Your task to perform on an android device: open app "Facebook Messenger" Image 0: 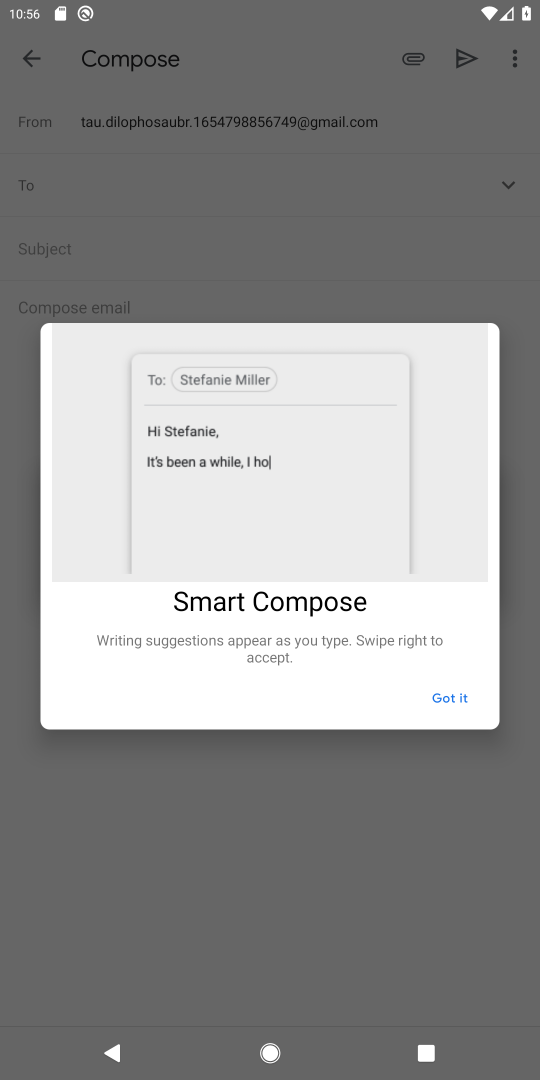
Step 0: press home button
Your task to perform on an android device: open app "Facebook Messenger" Image 1: 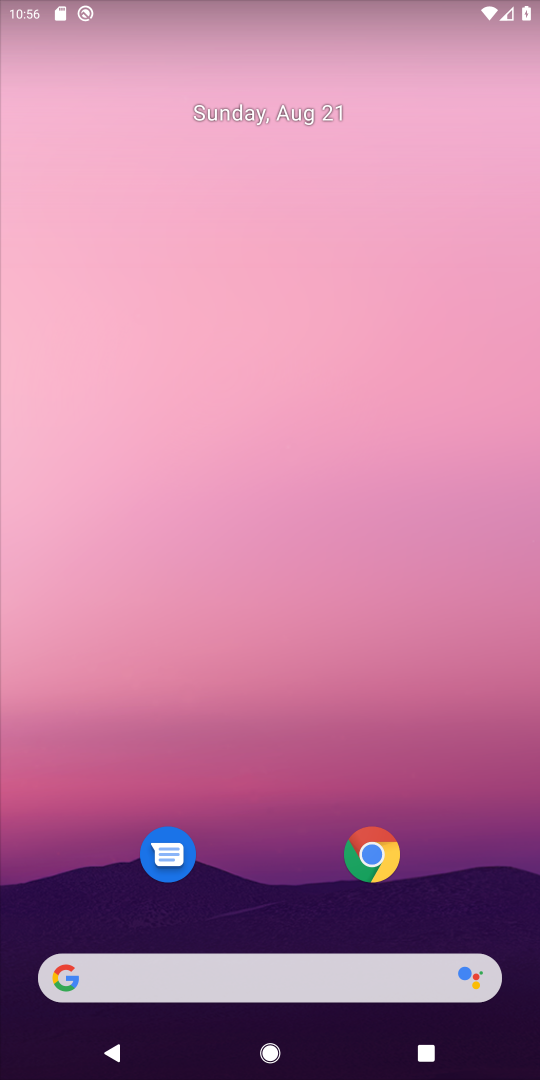
Step 1: drag from (306, 920) to (280, 132)
Your task to perform on an android device: open app "Facebook Messenger" Image 2: 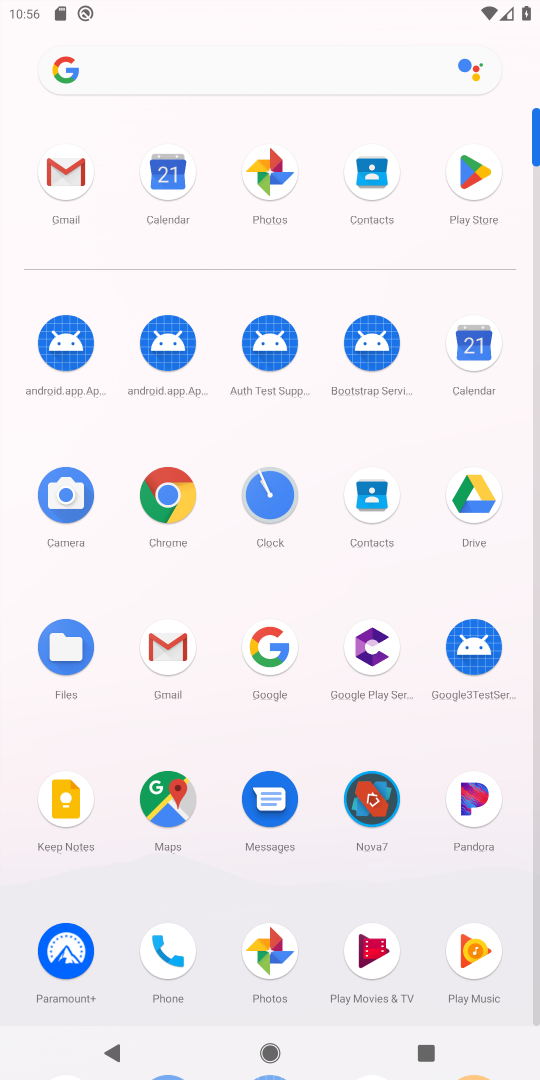
Step 2: click (480, 211)
Your task to perform on an android device: open app "Facebook Messenger" Image 3: 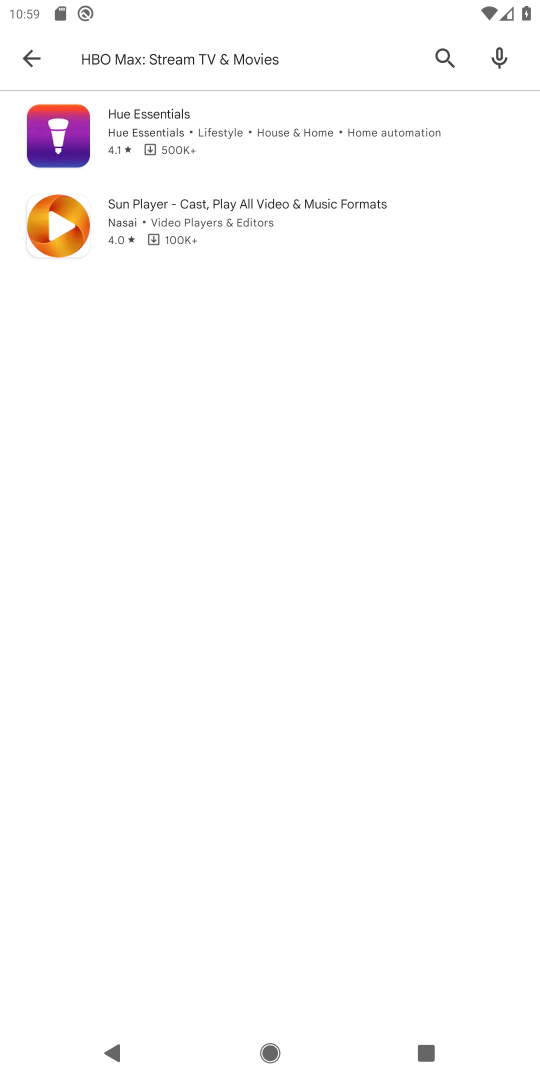
Step 3: press home button
Your task to perform on an android device: open app "Facebook Messenger" Image 4: 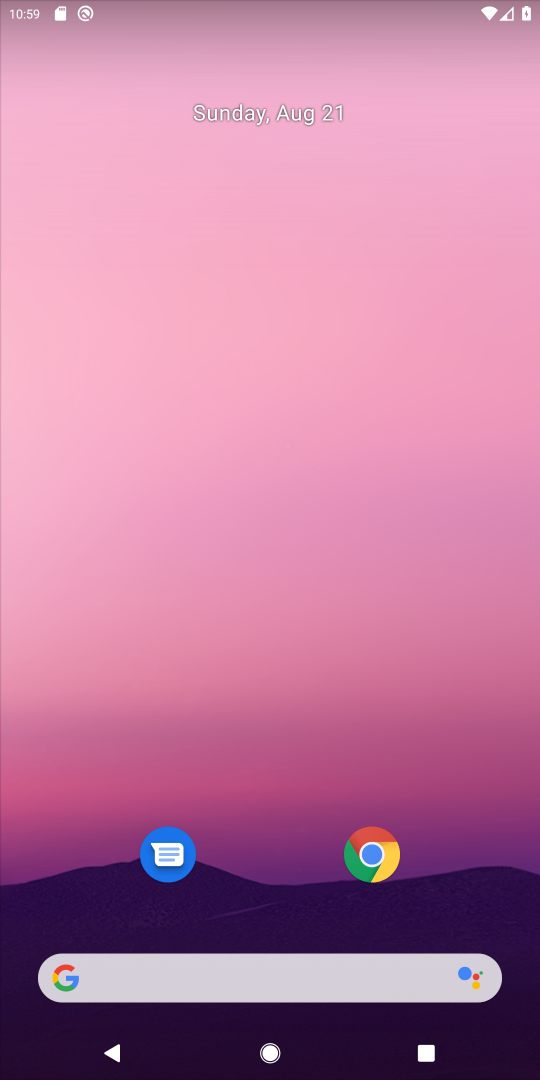
Step 4: drag from (257, 942) to (346, 13)
Your task to perform on an android device: open app "Facebook Messenger" Image 5: 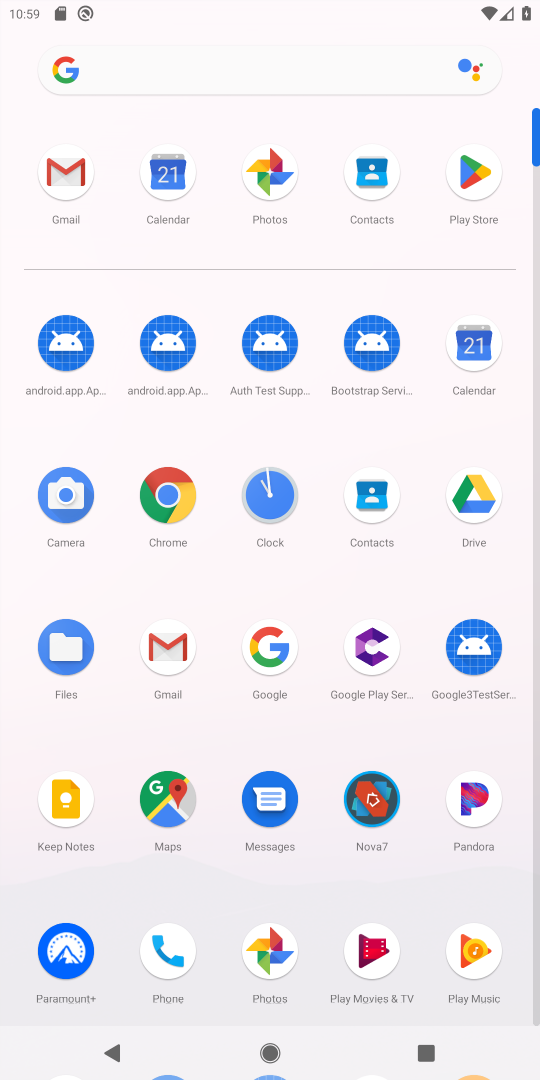
Step 5: click (479, 231)
Your task to perform on an android device: open app "Facebook Messenger" Image 6: 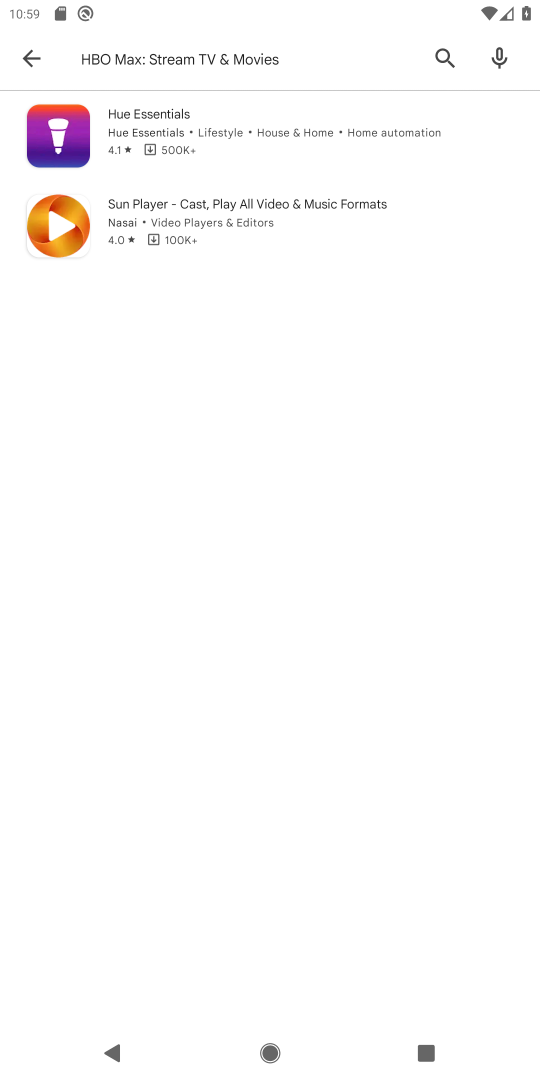
Step 6: click (448, 61)
Your task to perform on an android device: open app "Facebook Messenger" Image 7: 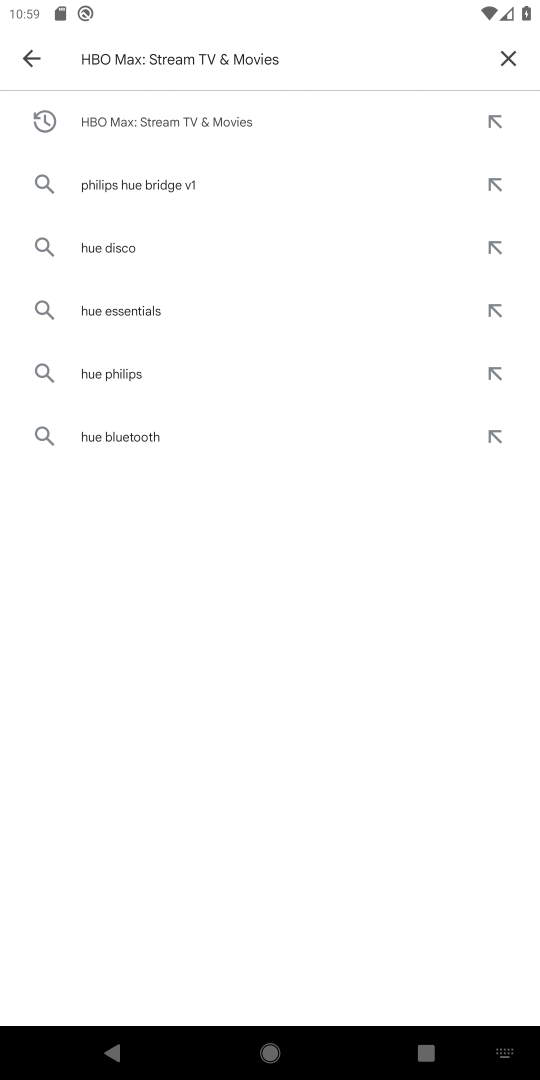
Step 7: click (498, 61)
Your task to perform on an android device: open app "Facebook Messenger" Image 8: 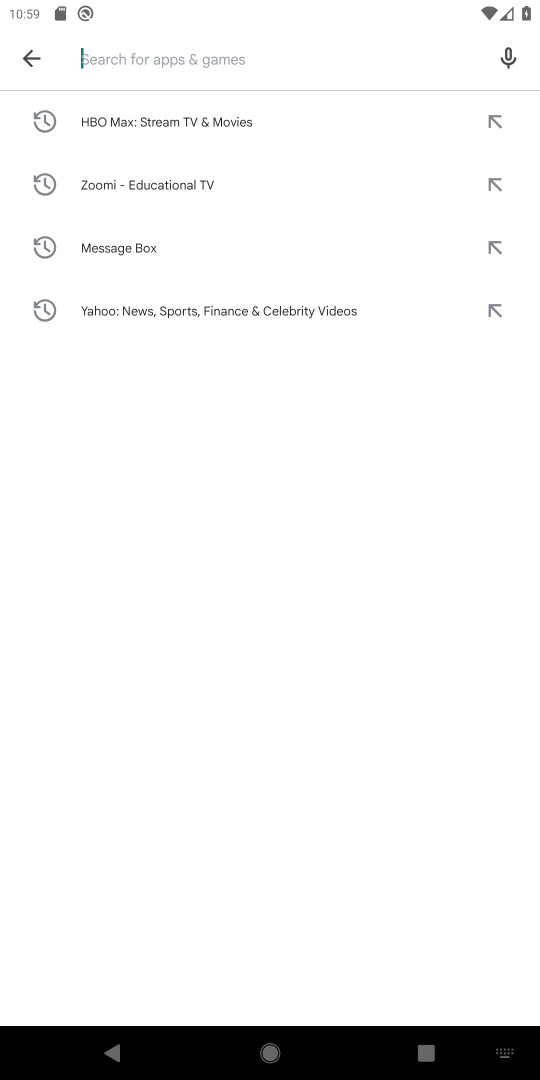
Step 8: type "facebook"
Your task to perform on an android device: open app "Facebook Messenger" Image 9: 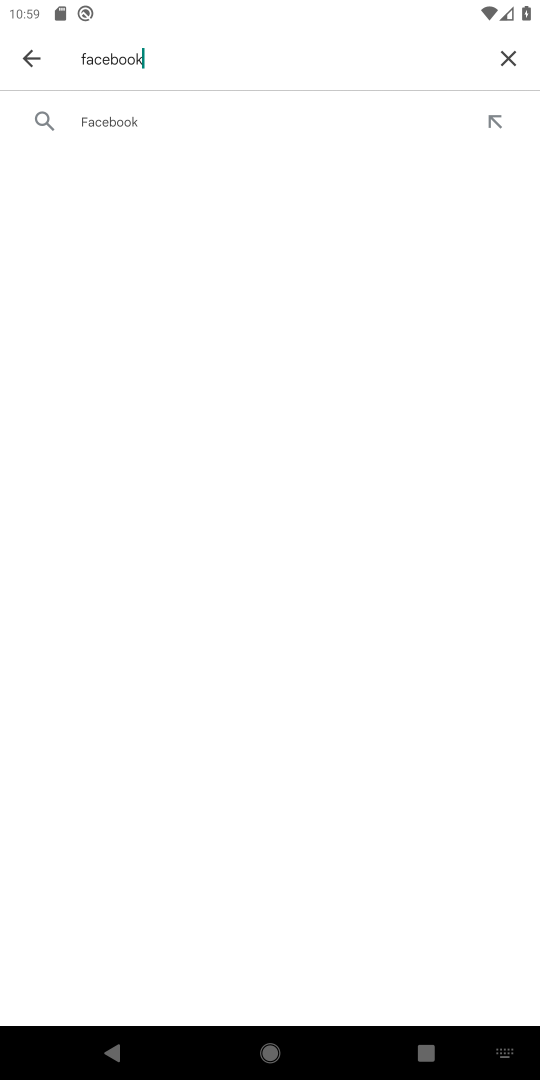
Step 9: click (184, 132)
Your task to perform on an android device: open app "Facebook Messenger" Image 10: 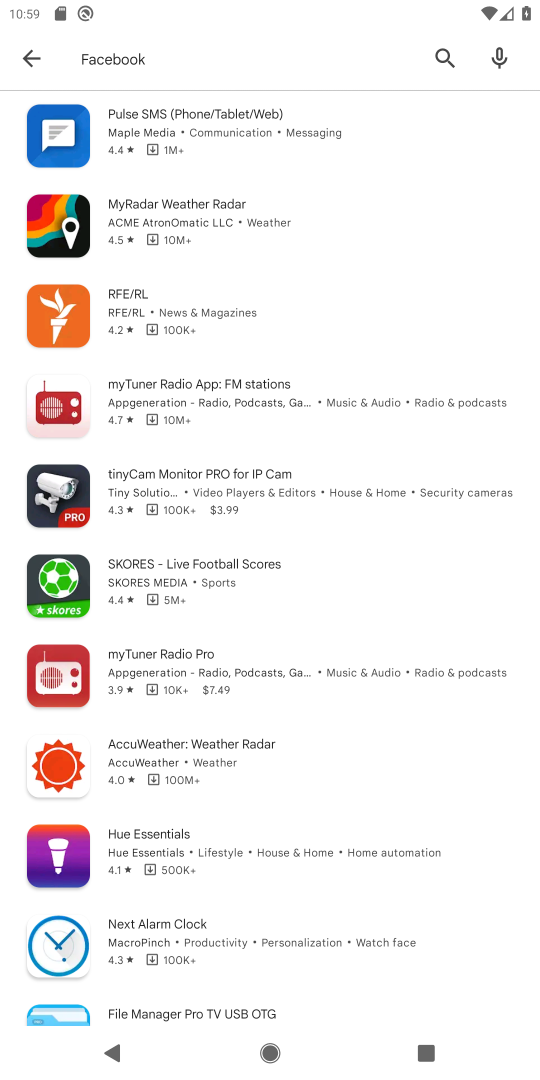
Step 10: task complete